Your task to perform on an android device: delete location history Image 0: 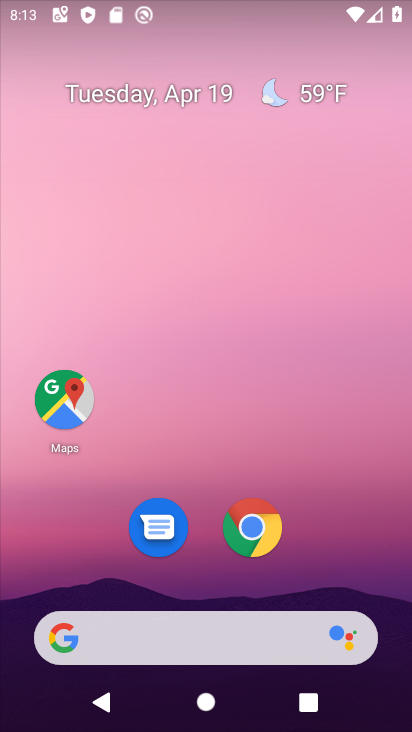
Step 0: click (202, 587)
Your task to perform on an android device: delete location history Image 1: 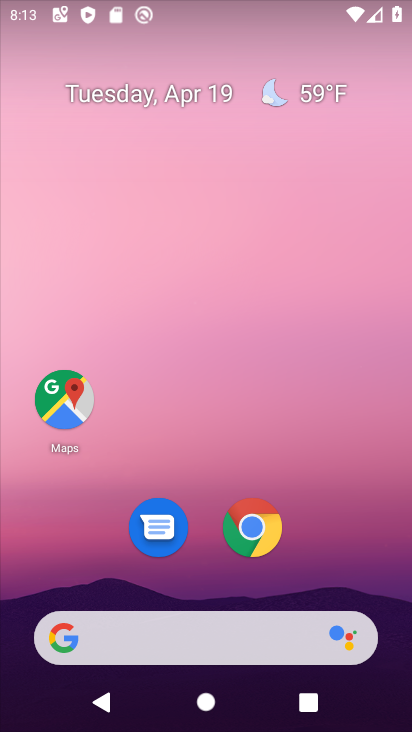
Step 1: click (72, 397)
Your task to perform on an android device: delete location history Image 2: 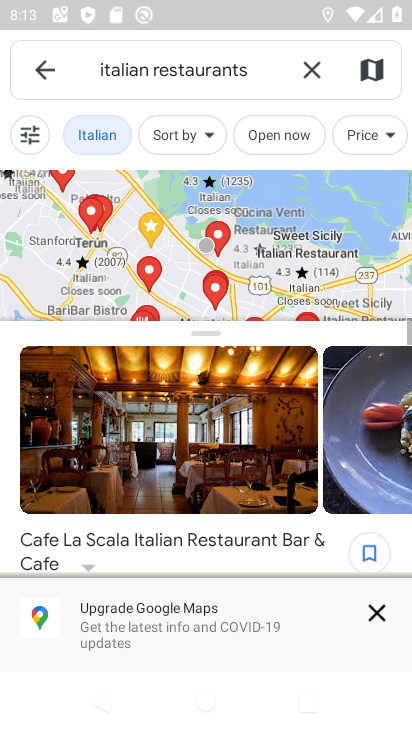
Step 2: click (49, 69)
Your task to perform on an android device: delete location history Image 3: 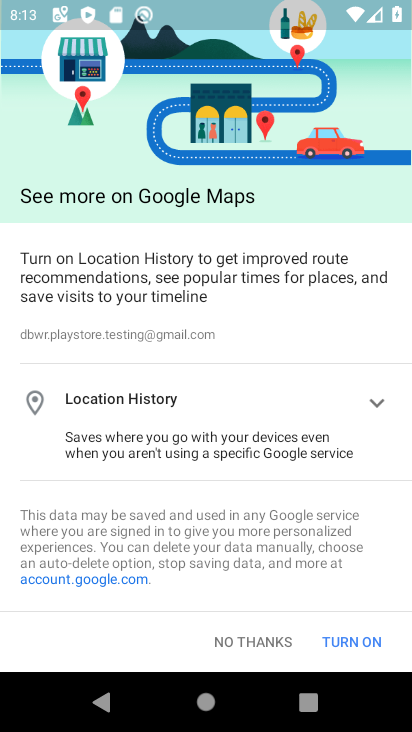
Step 3: click (360, 639)
Your task to perform on an android device: delete location history Image 4: 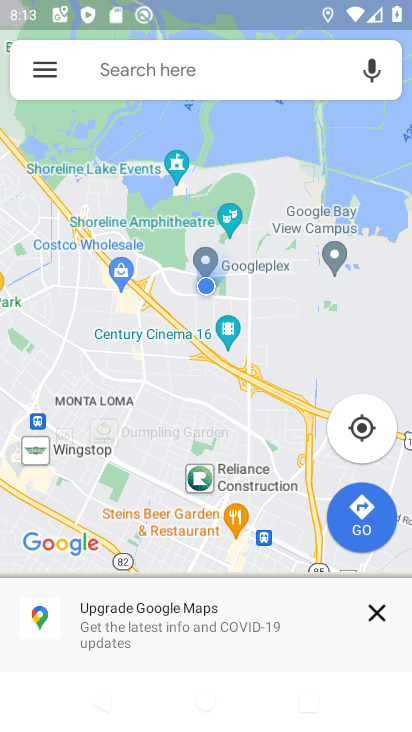
Step 4: click (41, 66)
Your task to perform on an android device: delete location history Image 5: 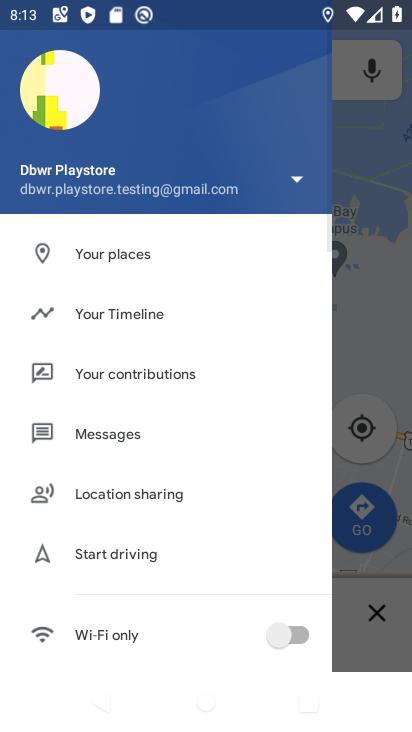
Step 5: click (144, 317)
Your task to perform on an android device: delete location history Image 6: 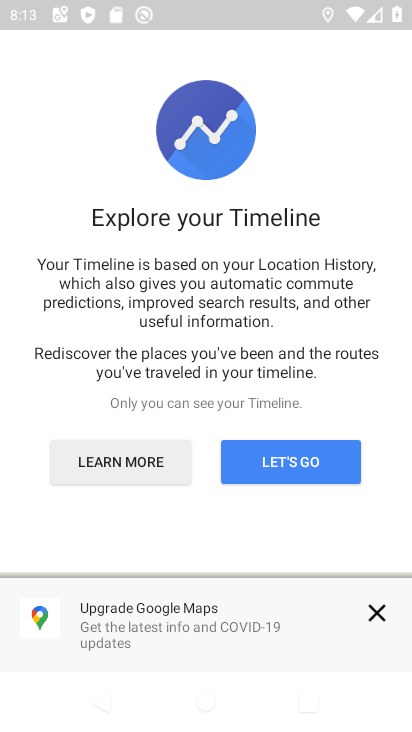
Step 6: click (287, 466)
Your task to perform on an android device: delete location history Image 7: 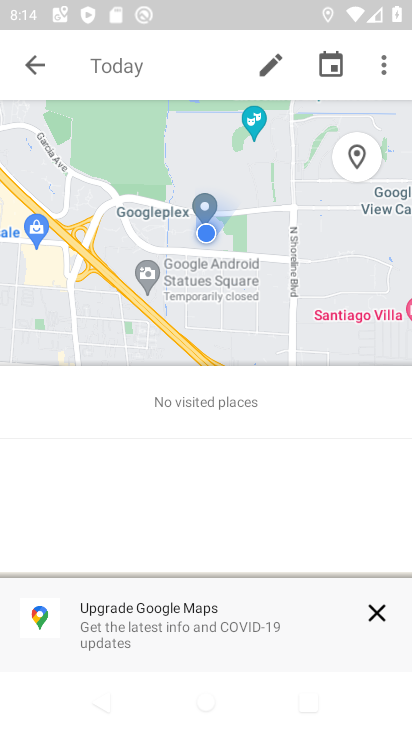
Step 7: click (381, 67)
Your task to perform on an android device: delete location history Image 8: 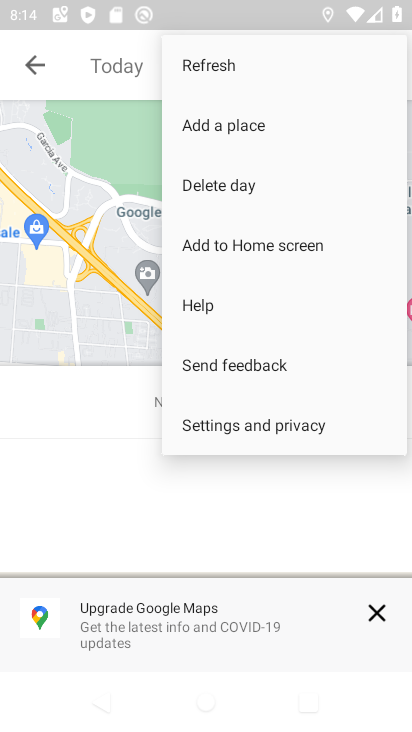
Step 8: click (255, 429)
Your task to perform on an android device: delete location history Image 9: 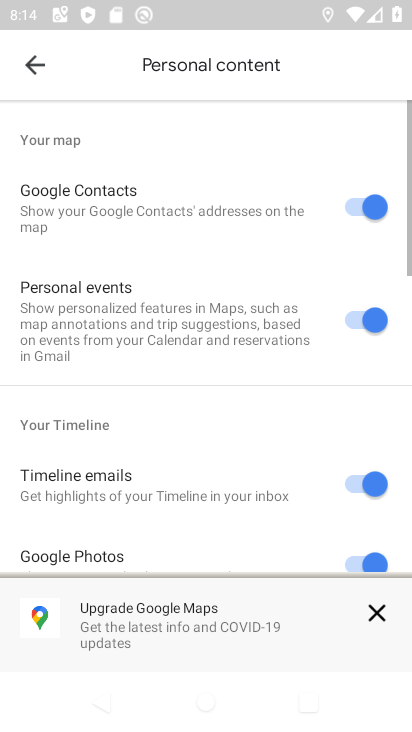
Step 9: drag from (198, 528) to (196, 184)
Your task to perform on an android device: delete location history Image 10: 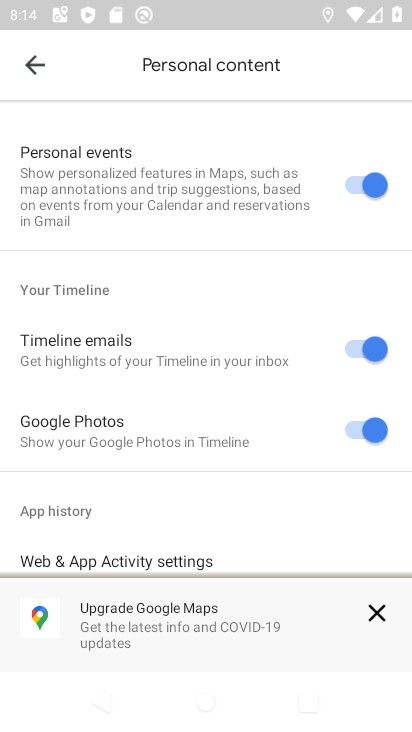
Step 10: drag from (213, 583) to (224, 258)
Your task to perform on an android device: delete location history Image 11: 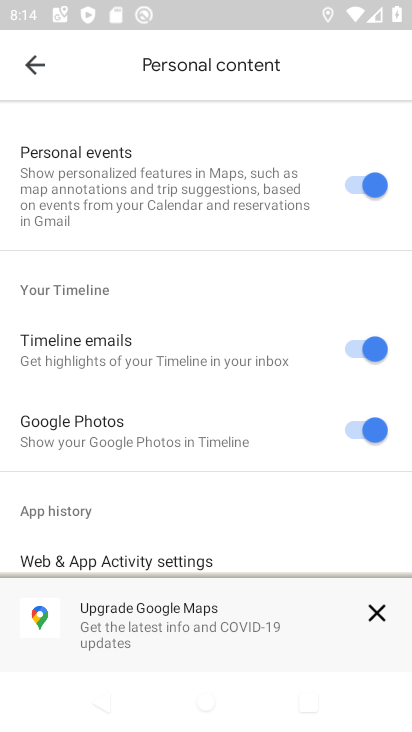
Step 11: drag from (195, 393) to (216, 225)
Your task to perform on an android device: delete location history Image 12: 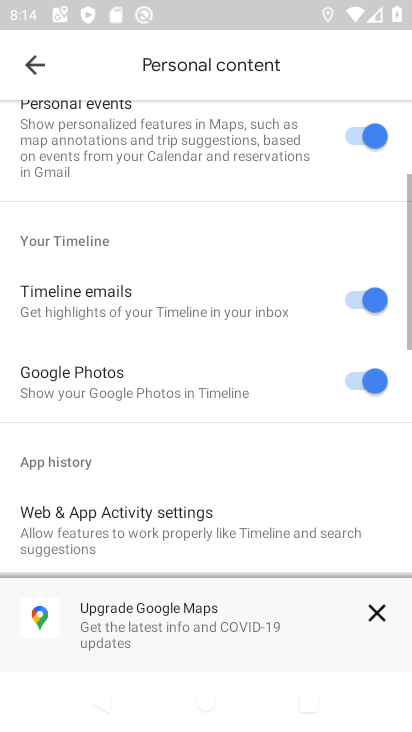
Step 12: drag from (204, 414) to (230, 210)
Your task to perform on an android device: delete location history Image 13: 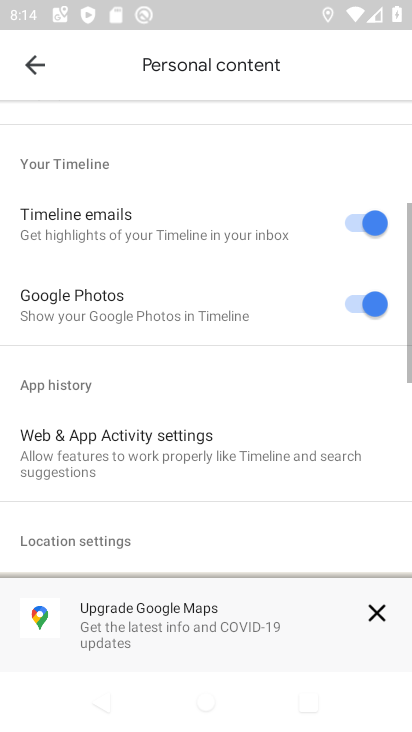
Step 13: drag from (201, 515) to (219, 272)
Your task to perform on an android device: delete location history Image 14: 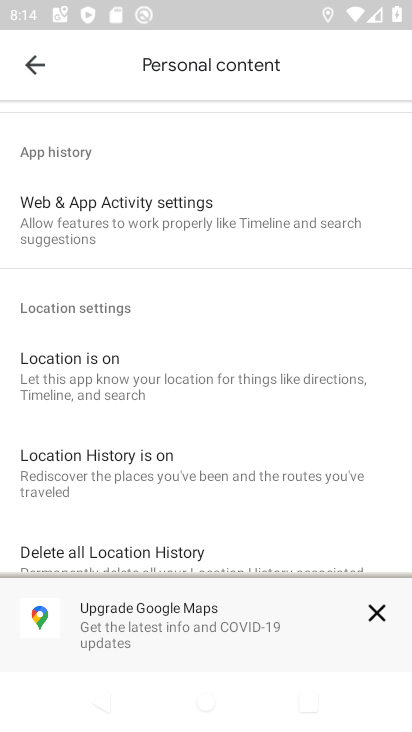
Step 14: click (207, 541)
Your task to perform on an android device: delete location history Image 15: 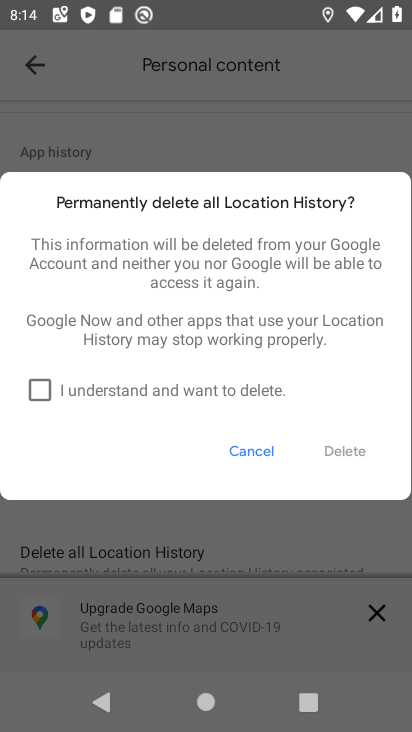
Step 15: click (53, 391)
Your task to perform on an android device: delete location history Image 16: 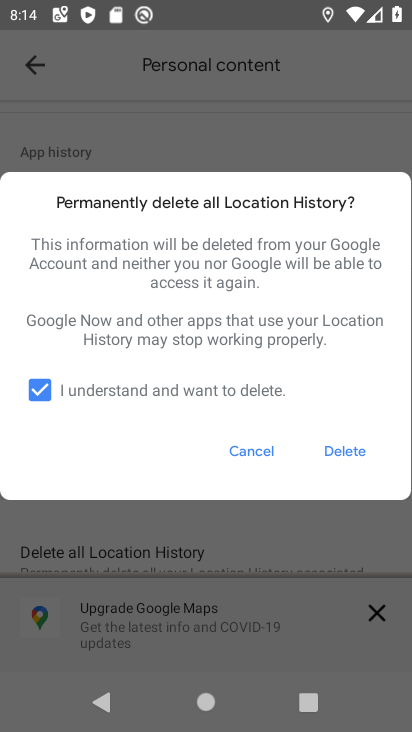
Step 16: click (343, 447)
Your task to perform on an android device: delete location history Image 17: 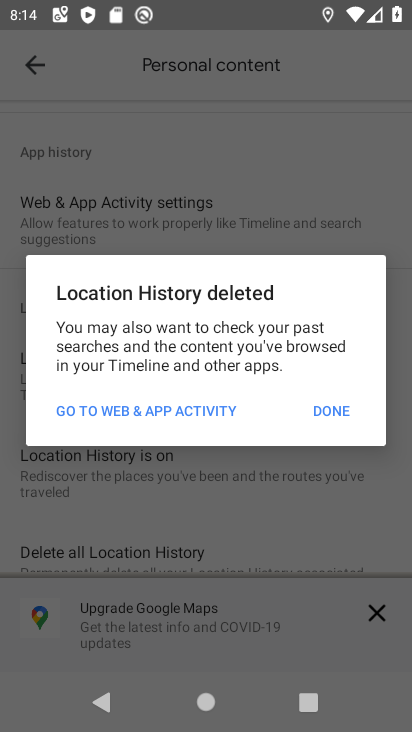
Step 17: click (334, 406)
Your task to perform on an android device: delete location history Image 18: 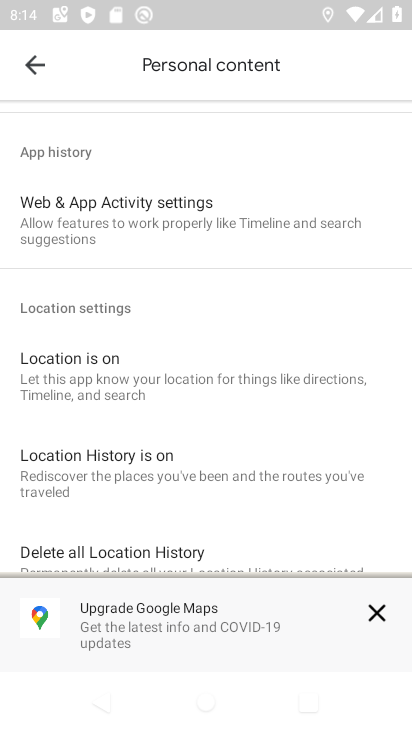
Step 18: task complete